Your task to perform on an android device: turn on translation in the chrome app Image 0: 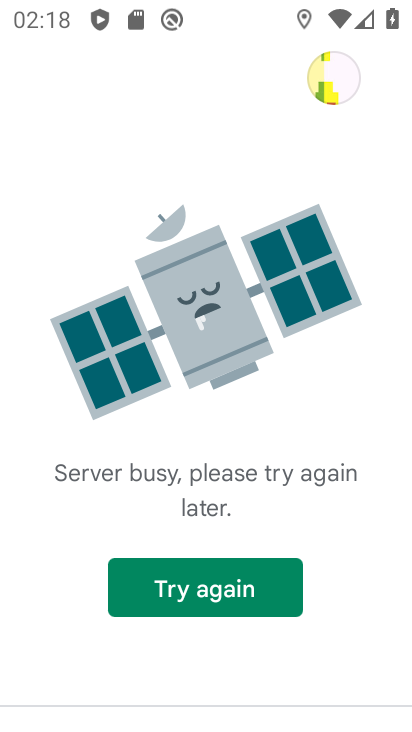
Step 0: press home button
Your task to perform on an android device: turn on translation in the chrome app Image 1: 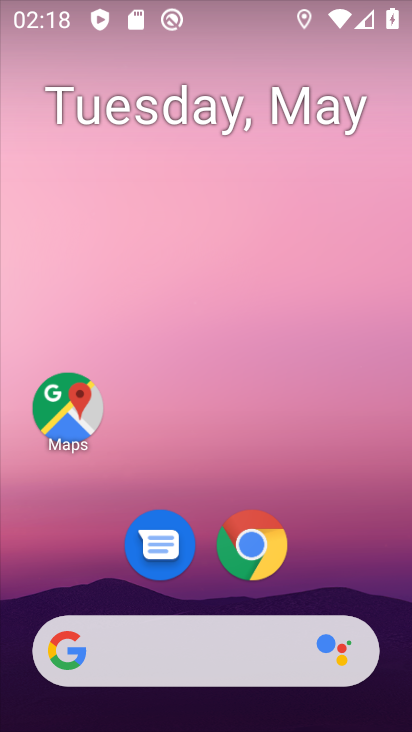
Step 1: click (249, 563)
Your task to perform on an android device: turn on translation in the chrome app Image 2: 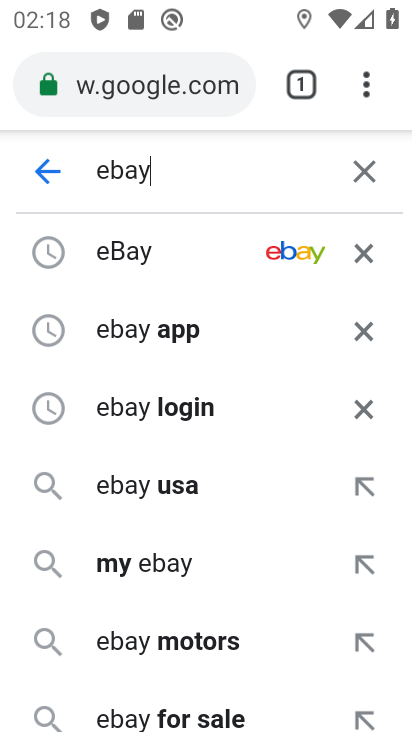
Step 2: click (366, 82)
Your task to perform on an android device: turn on translation in the chrome app Image 3: 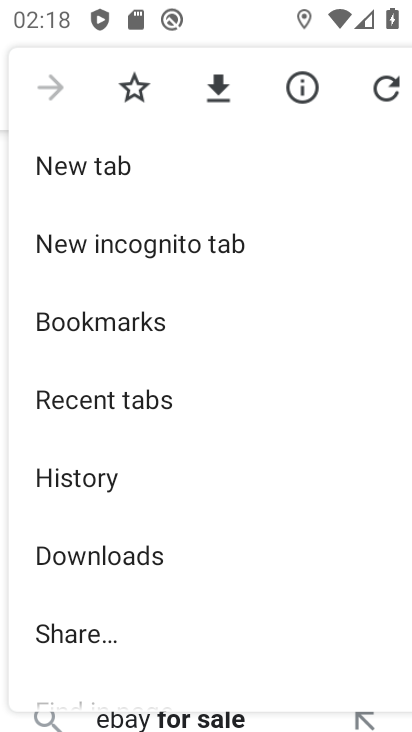
Step 3: drag from (168, 558) to (260, 218)
Your task to perform on an android device: turn on translation in the chrome app Image 4: 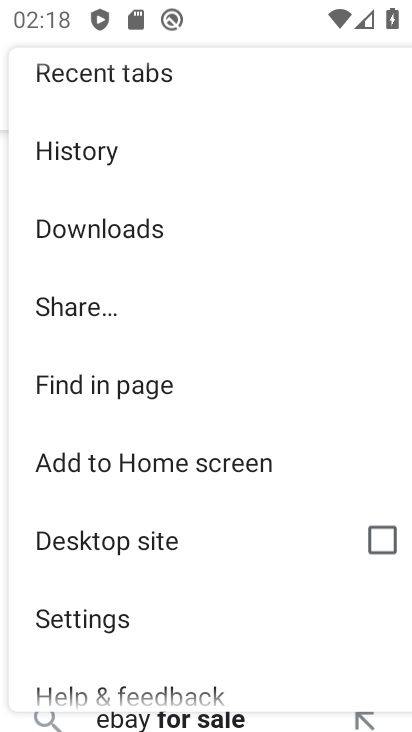
Step 4: click (120, 617)
Your task to perform on an android device: turn on translation in the chrome app Image 5: 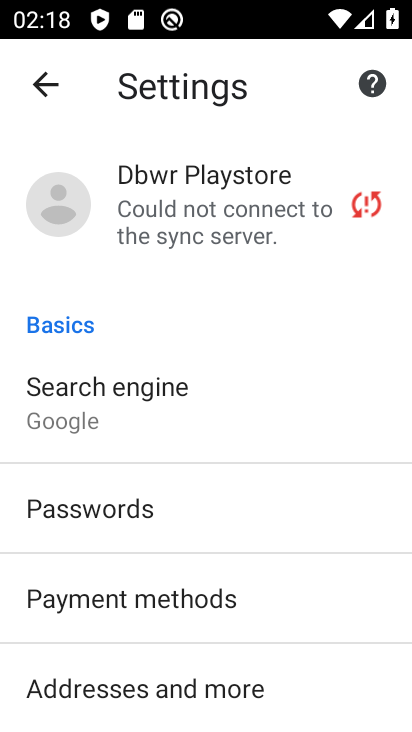
Step 5: drag from (138, 699) to (236, 209)
Your task to perform on an android device: turn on translation in the chrome app Image 6: 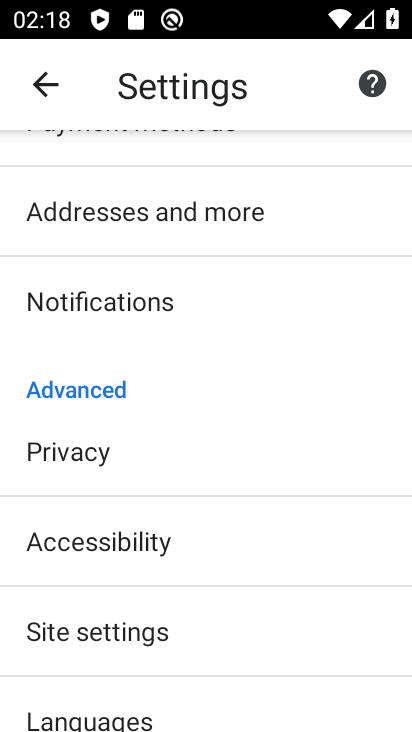
Step 6: drag from (172, 557) to (211, 311)
Your task to perform on an android device: turn on translation in the chrome app Image 7: 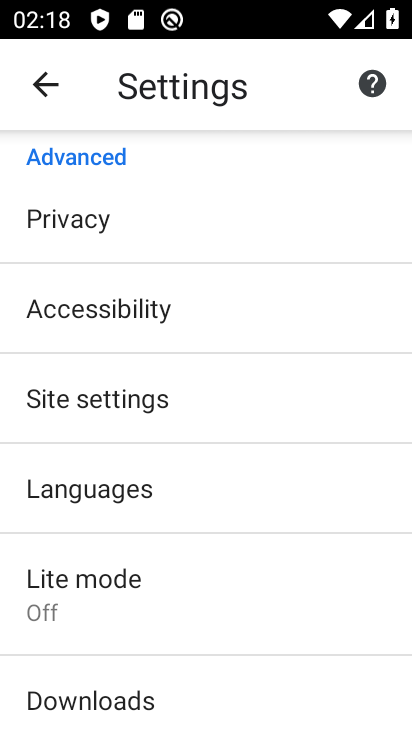
Step 7: click (148, 473)
Your task to perform on an android device: turn on translation in the chrome app Image 8: 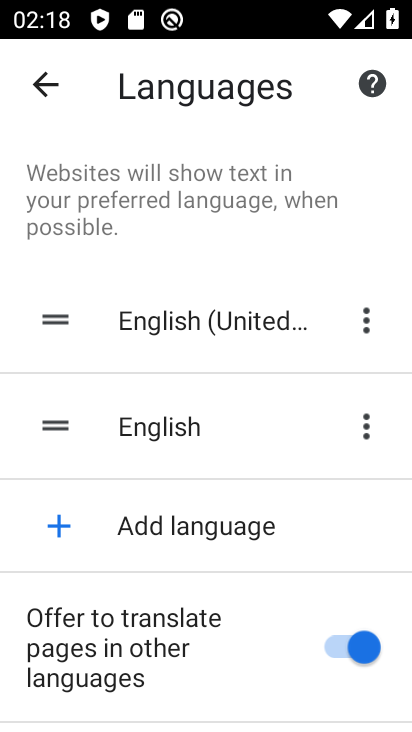
Step 8: task complete